Your task to perform on an android device: search for starred emails in the gmail app Image 0: 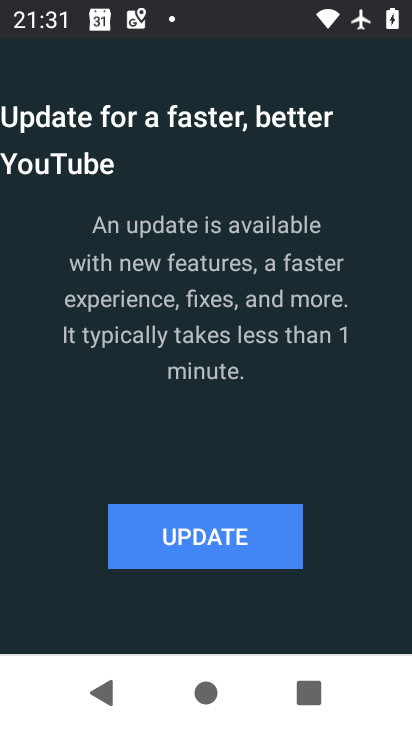
Step 0: press back button
Your task to perform on an android device: search for starred emails in the gmail app Image 1: 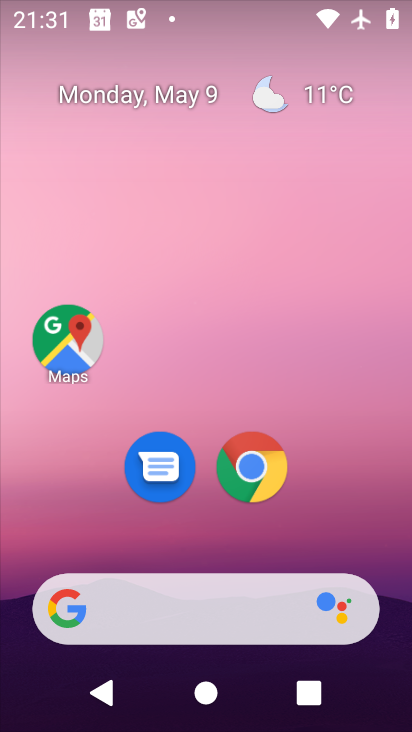
Step 1: drag from (331, 527) to (327, 237)
Your task to perform on an android device: search for starred emails in the gmail app Image 2: 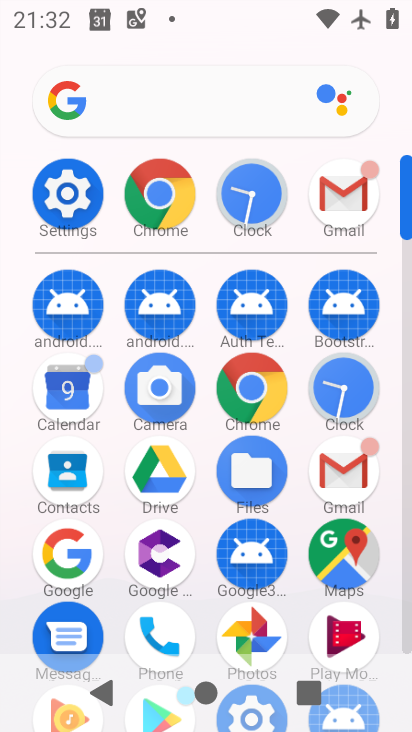
Step 2: click (338, 189)
Your task to perform on an android device: search for starred emails in the gmail app Image 3: 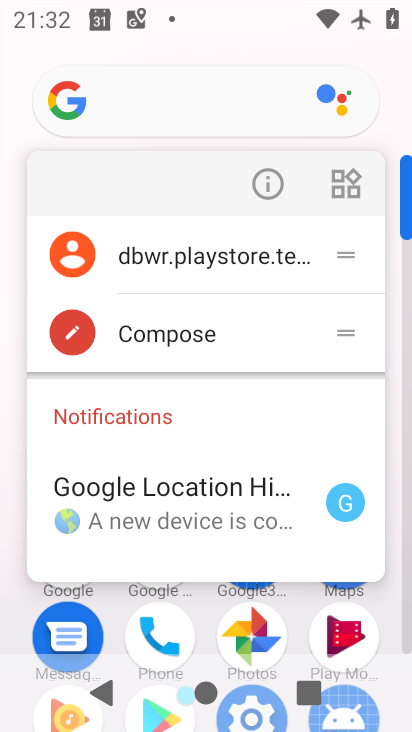
Step 3: press back button
Your task to perform on an android device: search for starred emails in the gmail app Image 4: 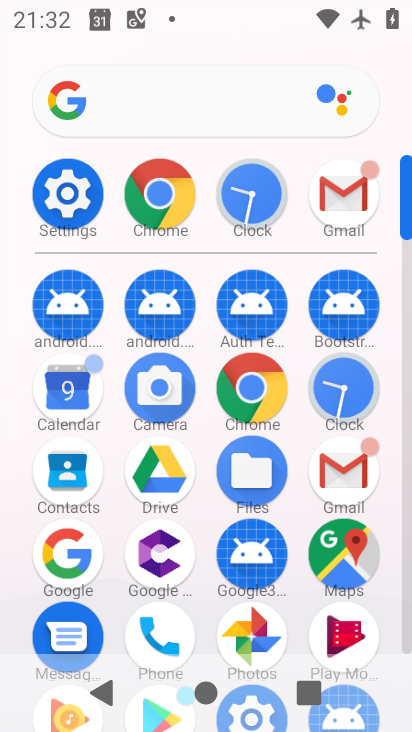
Step 4: click (340, 188)
Your task to perform on an android device: search for starred emails in the gmail app Image 5: 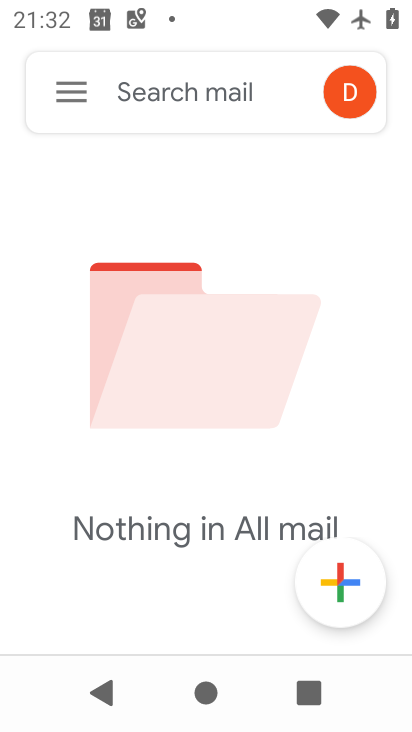
Step 5: click (72, 85)
Your task to perform on an android device: search for starred emails in the gmail app Image 6: 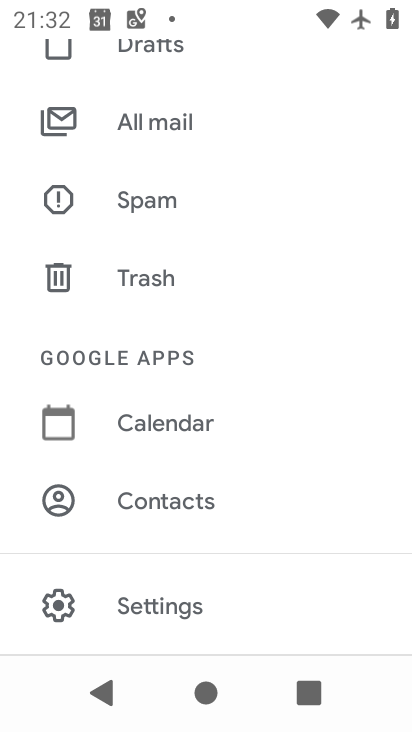
Step 6: drag from (286, 194) to (278, 559)
Your task to perform on an android device: search for starred emails in the gmail app Image 7: 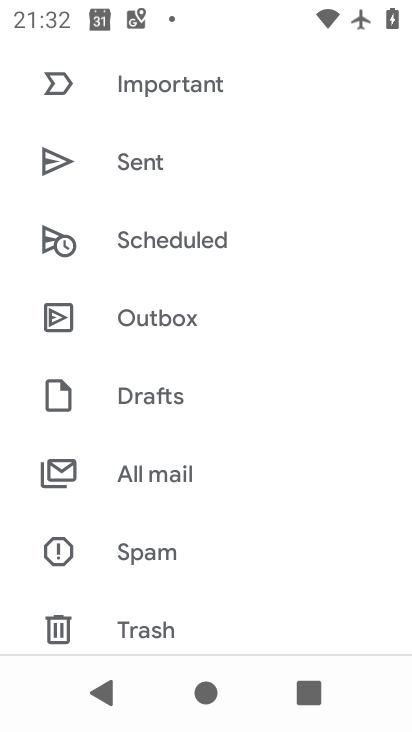
Step 7: drag from (184, 163) to (167, 503)
Your task to perform on an android device: search for starred emails in the gmail app Image 8: 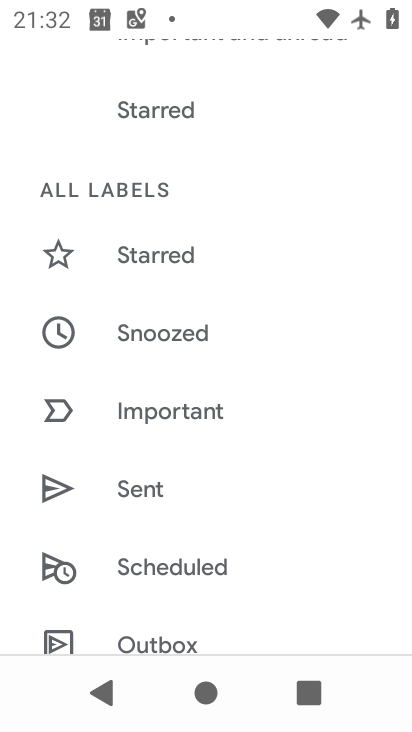
Step 8: click (204, 253)
Your task to perform on an android device: search for starred emails in the gmail app Image 9: 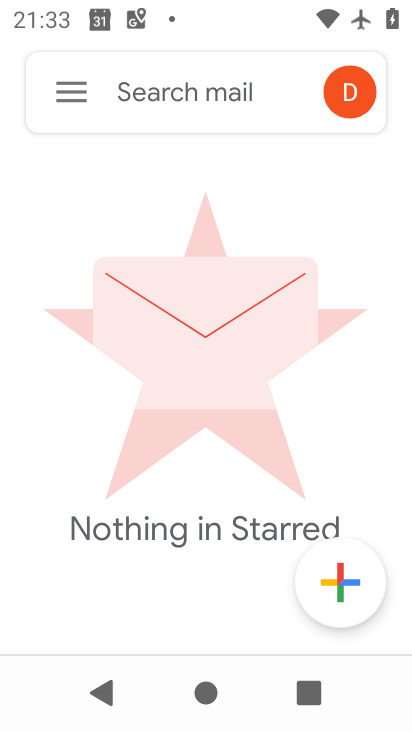
Step 9: task complete